Your task to perform on an android device: Open battery settings Image 0: 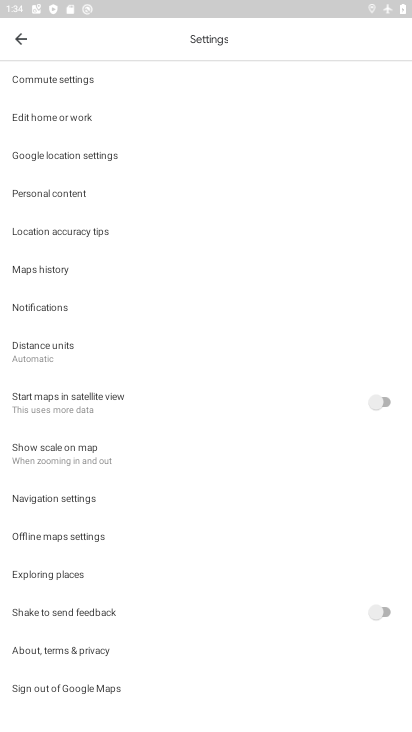
Step 0: press home button
Your task to perform on an android device: Open battery settings Image 1: 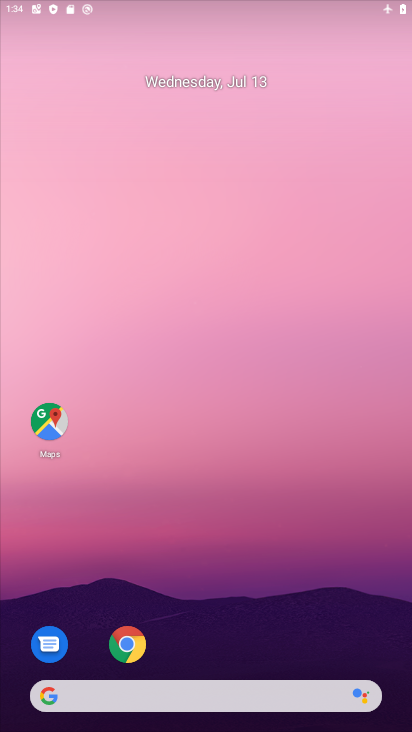
Step 1: drag from (277, 620) to (275, 170)
Your task to perform on an android device: Open battery settings Image 2: 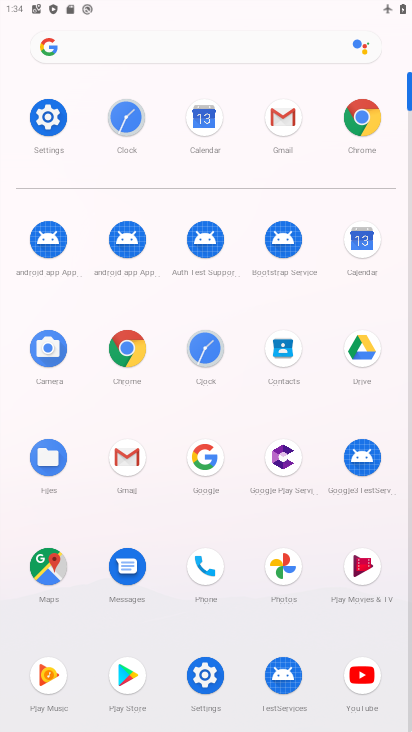
Step 2: click (52, 123)
Your task to perform on an android device: Open battery settings Image 3: 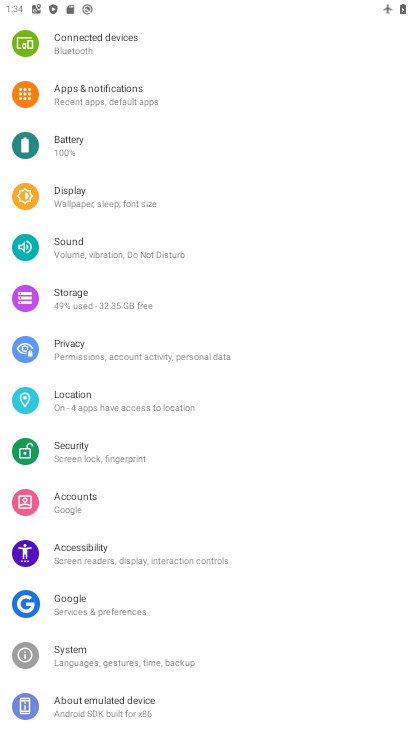
Step 3: click (83, 148)
Your task to perform on an android device: Open battery settings Image 4: 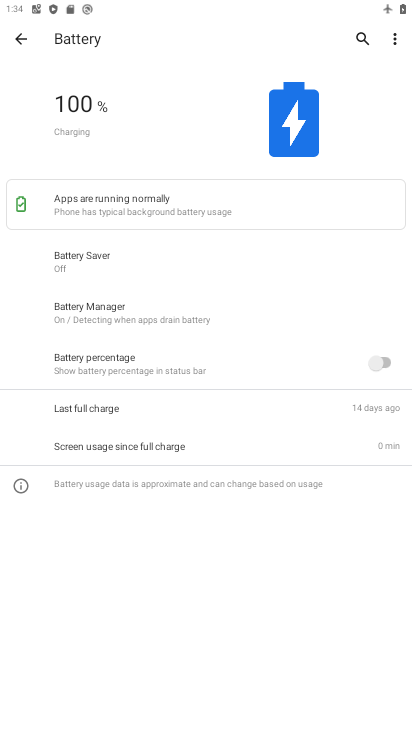
Step 4: task complete